Your task to perform on an android device: turn on javascript in the chrome app Image 0: 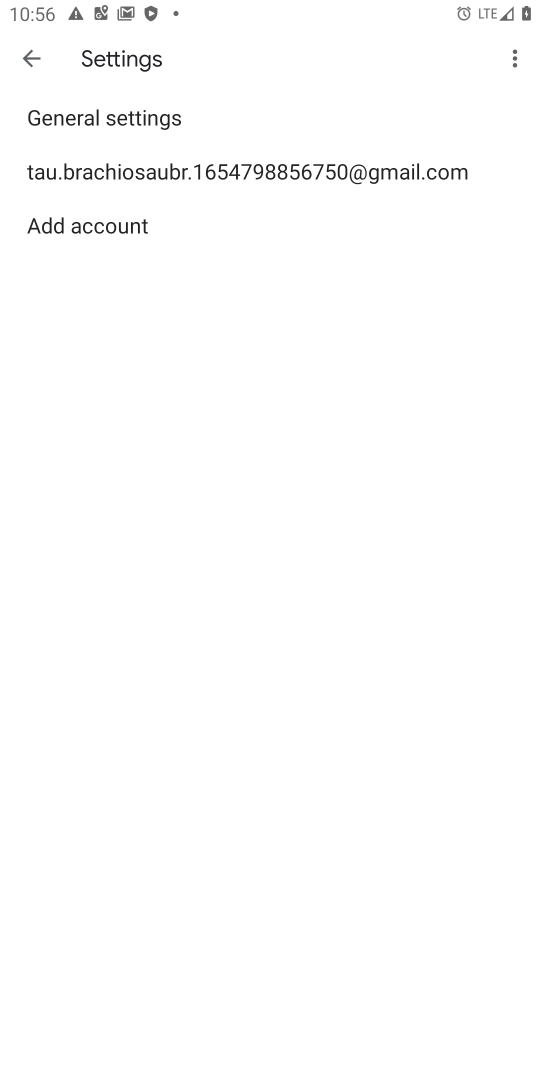
Step 0: press home button
Your task to perform on an android device: turn on javascript in the chrome app Image 1: 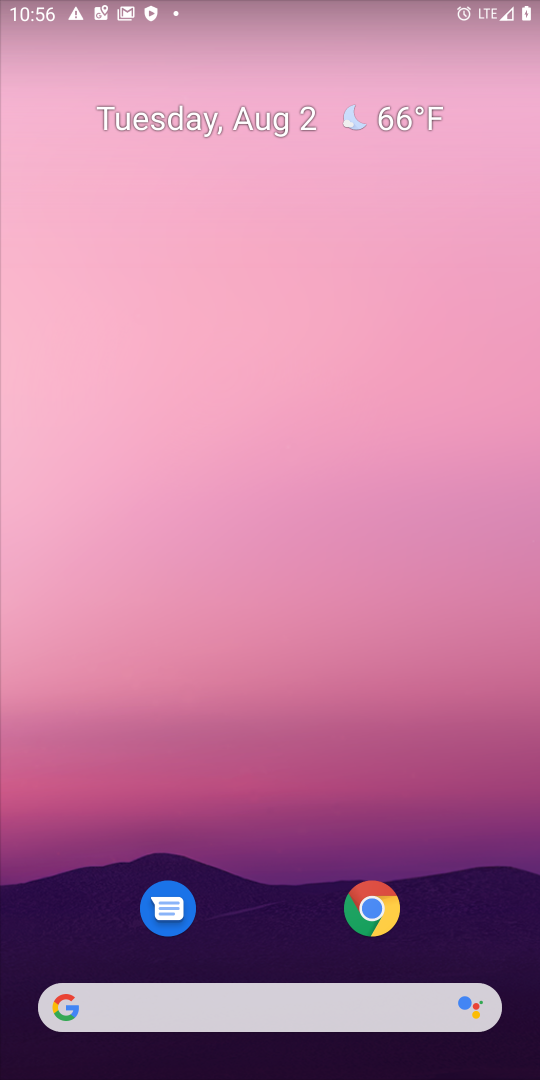
Step 1: drag from (294, 749) to (336, 145)
Your task to perform on an android device: turn on javascript in the chrome app Image 2: 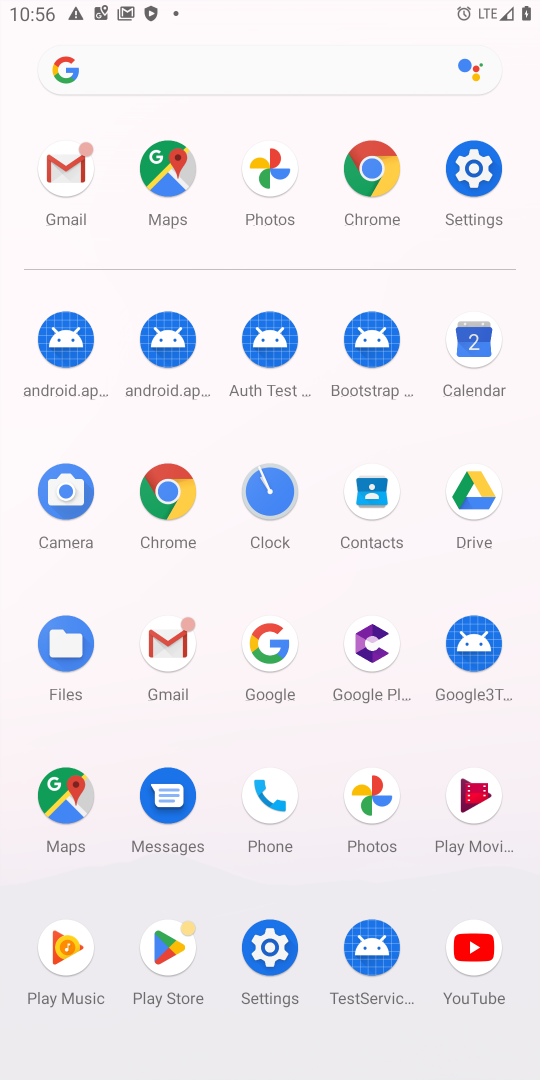
Step 2: click (368, 212)
Your task to perform on an android device: turn on javascript in the chrome app Image 3: 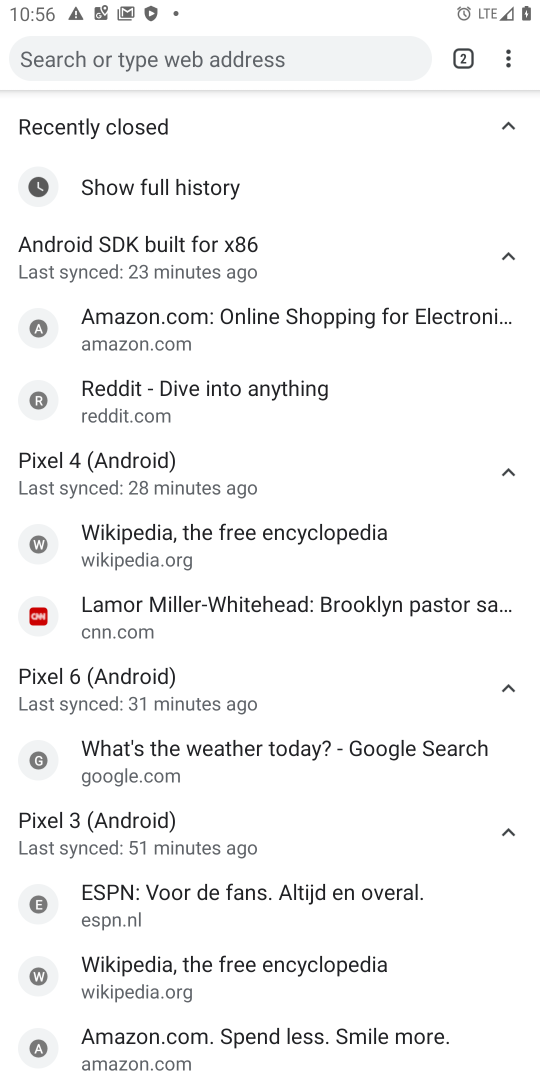
Step 3: click (500, 58)
Your task to perform on an android device: turn on javascript in the chrome app Image 4: 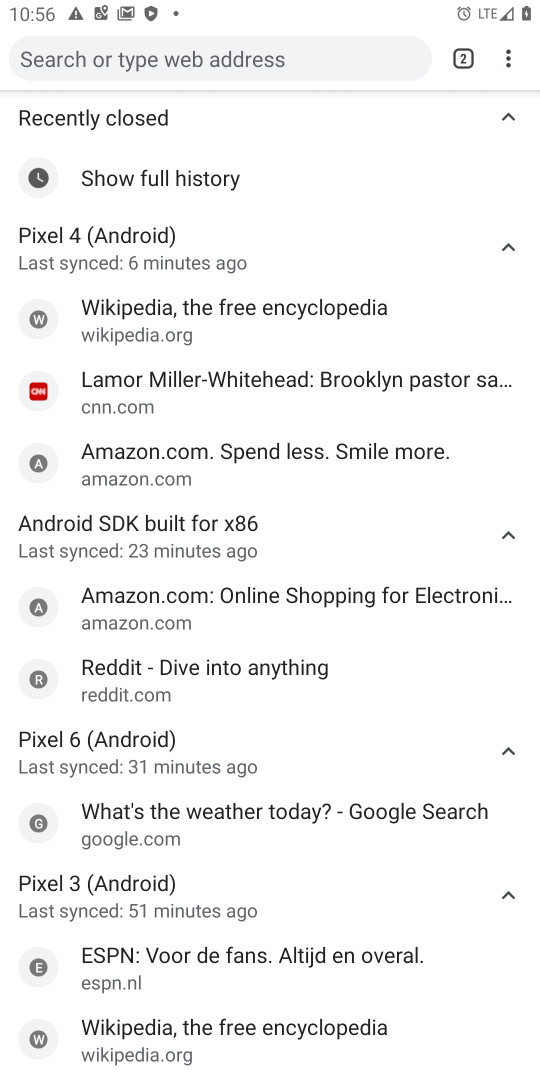
Step 4: click (503, 58)
Your task to perform on an android device: turn on javascript in the chrome app Image 5: 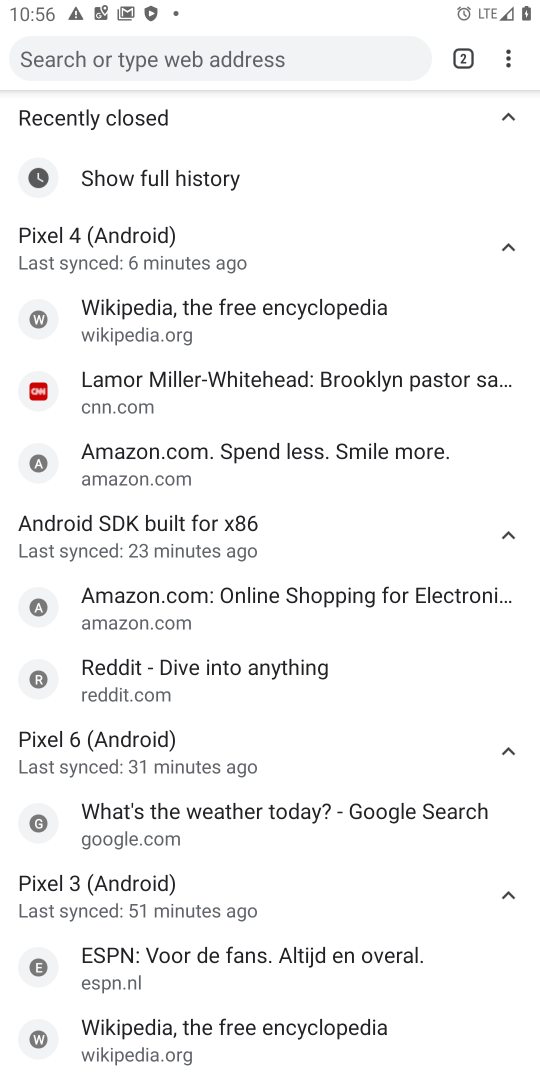
Step 5: click (504, 56)
Your task to perform on an android device: turn on javascript in the chrome app Image 6: 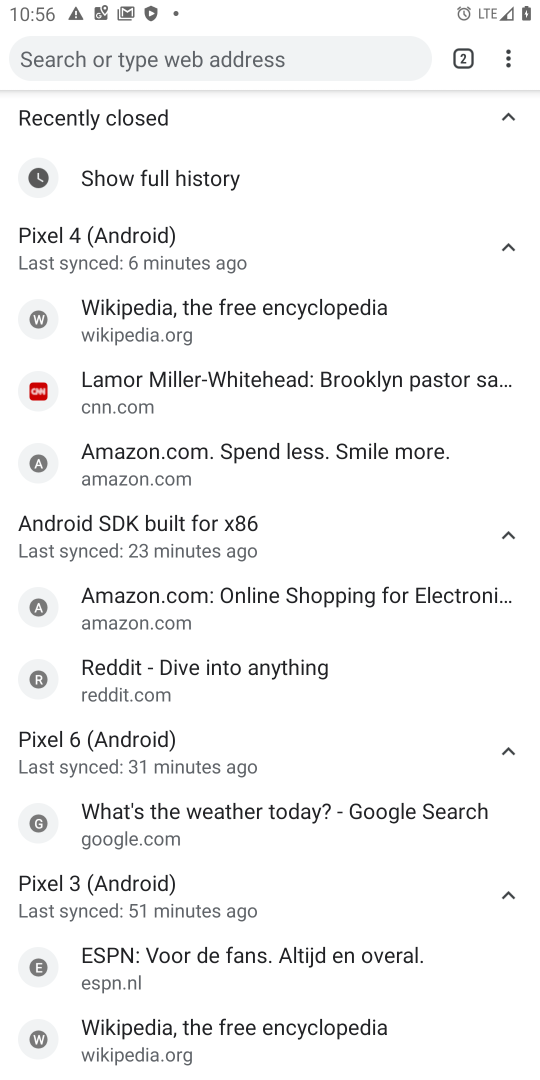
Step 6: click (508, 57)
Your task to perform on an android device: turn on javascript in the chrome app Image 7: 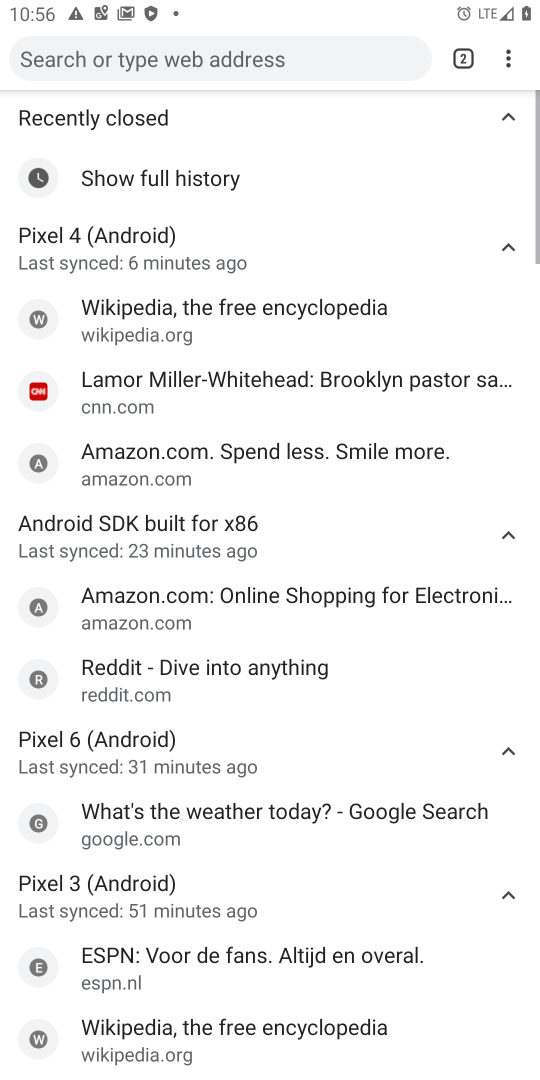
Step 7: click (513, 65)
Your task to perform on an android device: turn on javascript in the chrome app Image 8: 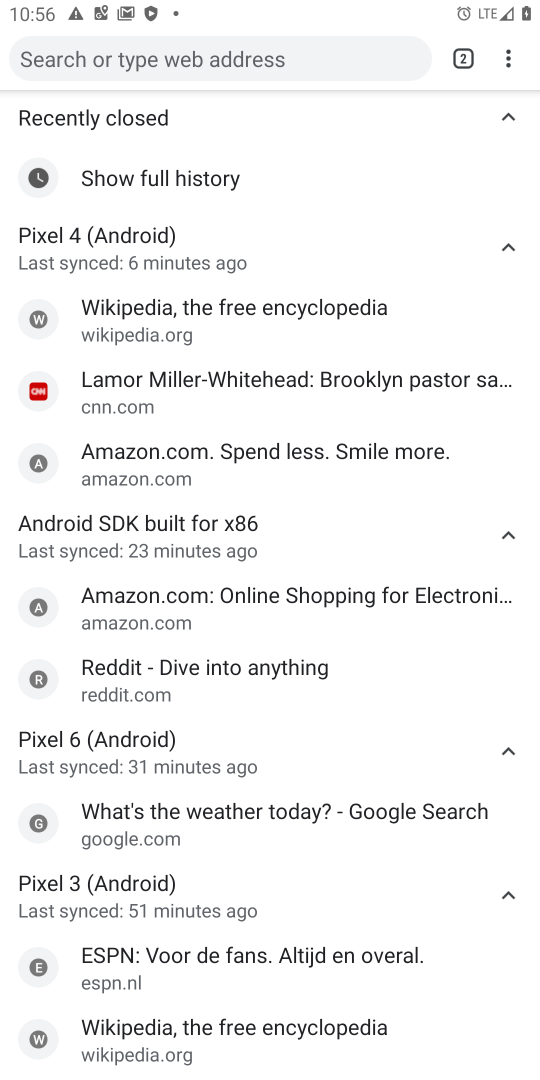
Step 8: click (506, 49)
Your task to perform on an android device: turn on javascript in the chrome app Image 9: 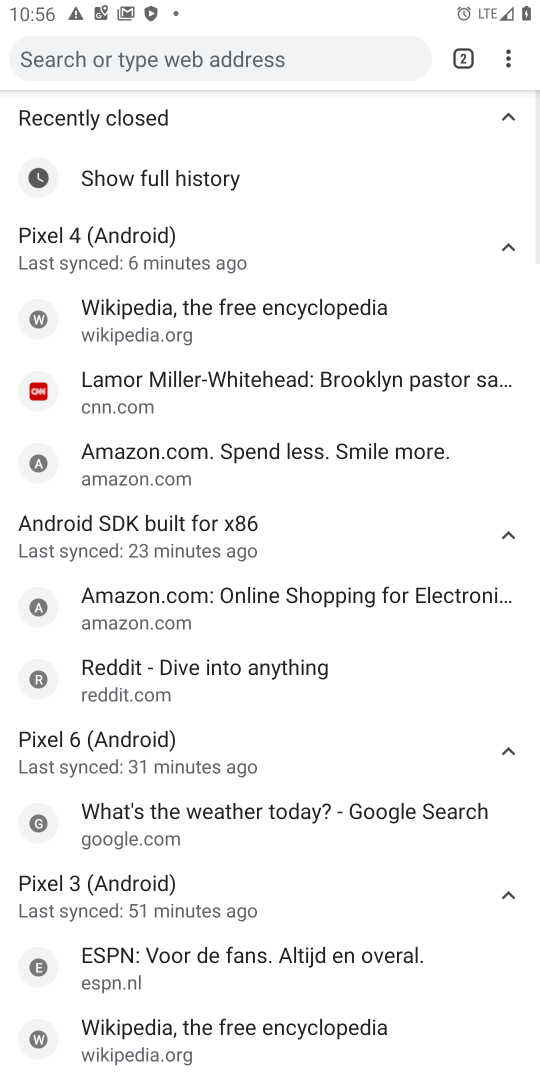
Step 9: click (519, 59)
Your task to perform on an android device: turn on javascript in the chrome app Image 10: 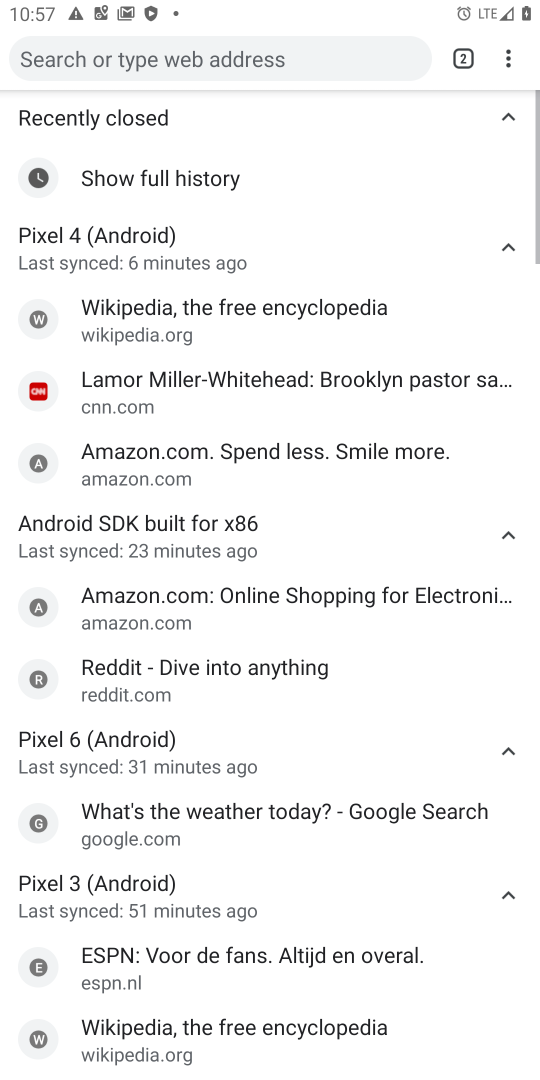
Step 10: click (515, 67)
Your task to perform on an android device: turn on javascript in the chrome app Image 11: 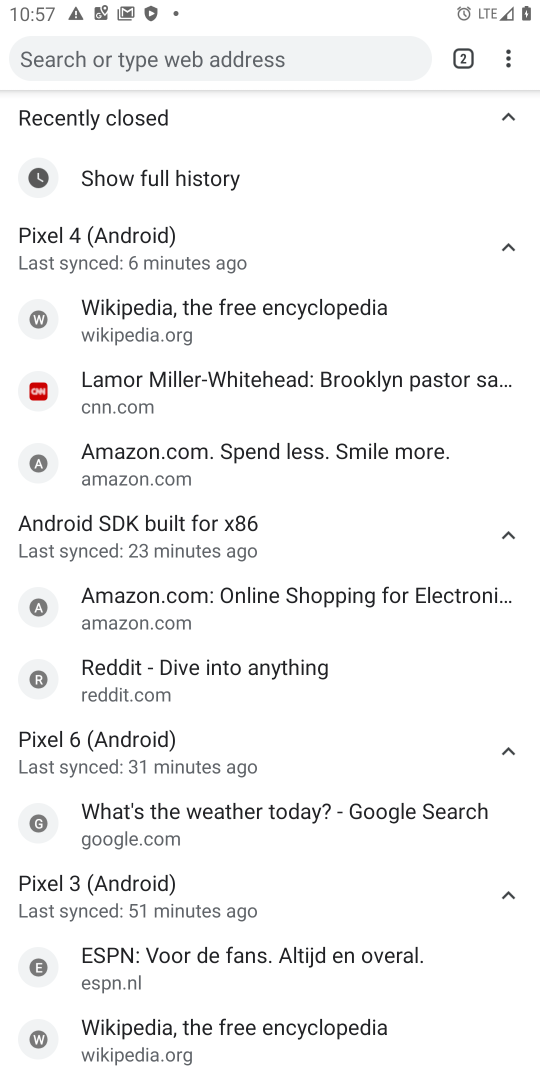
Step 11: click (504, 56)
Your task to perform on an android device: turn on javascript in the chrome app Image 12: 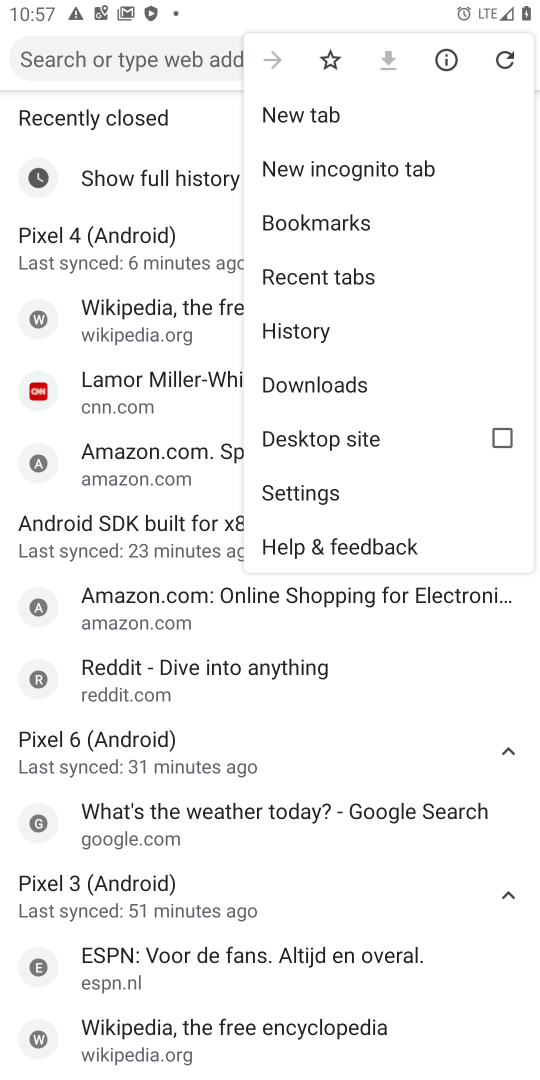
Step 12: click (362, 498)
Your task to perform on an android device: turn on javascript in the chrome app Image 13: 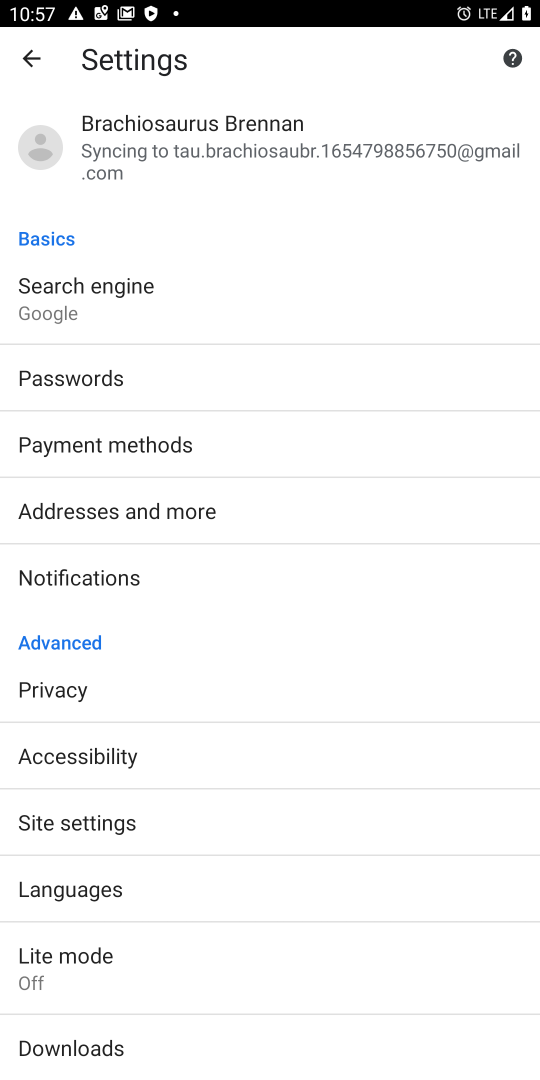
Step 13: drag from (195, 979) to (218, 646)
Your task to perform on an android device: turn on javascript in the chrome app Image 14: 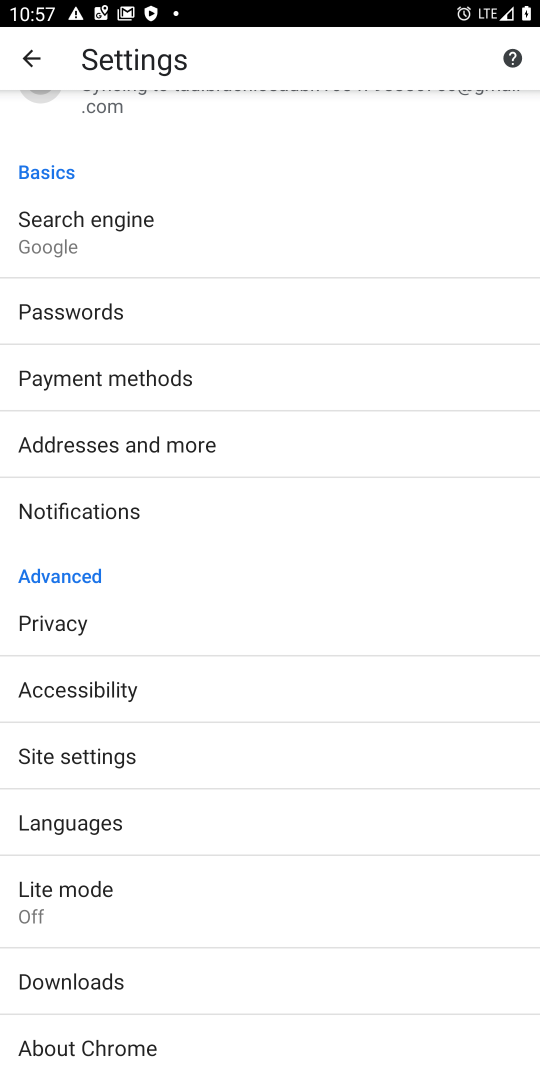
Step 14: click (196, 765)
Your task to perform on an android device: turn on javascript in the chrome app Image 15: 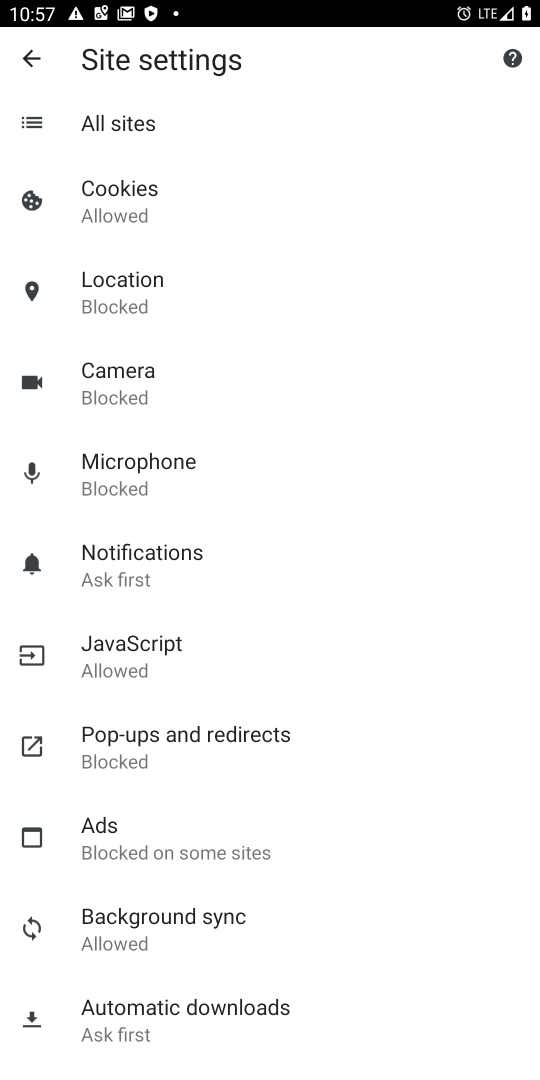
Step 15: click (200, 666)
Your task to perform on an android device: turn on javascript in the chrome app Image 16: 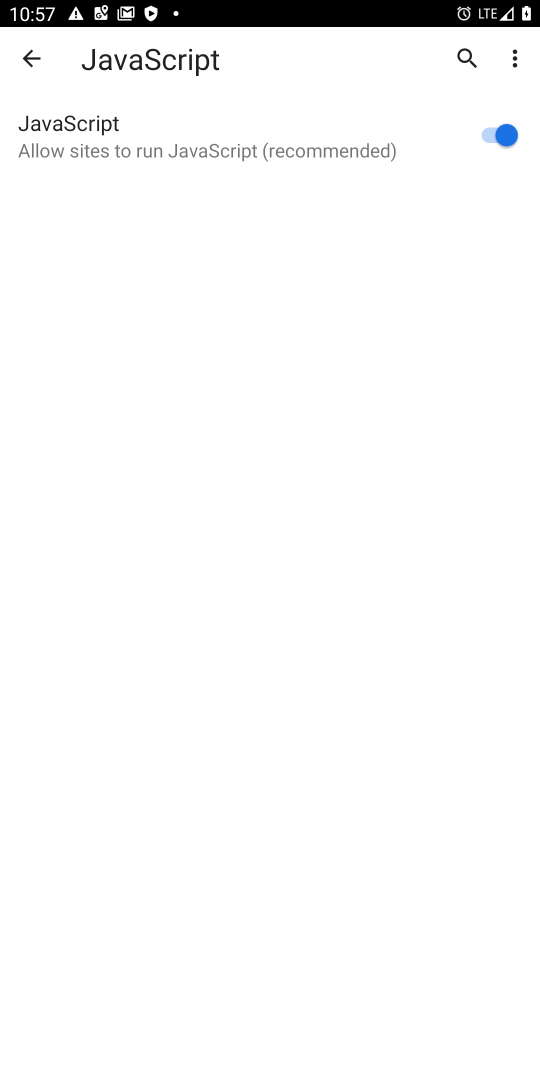
Step 16: task complete